Your task to perform on an android device: What's the weather? Image 0: 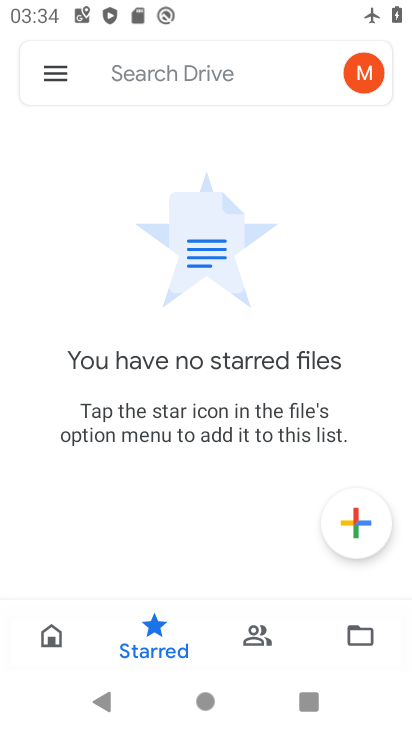
Step 0: press home button
Your task to perform on an android device: What's the weather? Image 1: 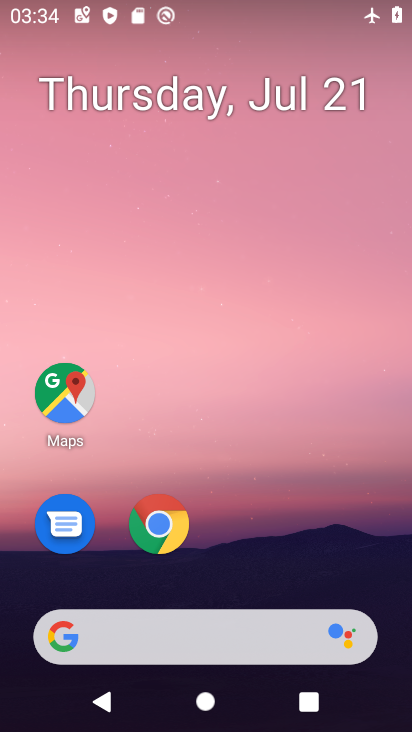
Step 1: click (234, 642)
Your task to perform on an android device: What's the weather? Image 2: 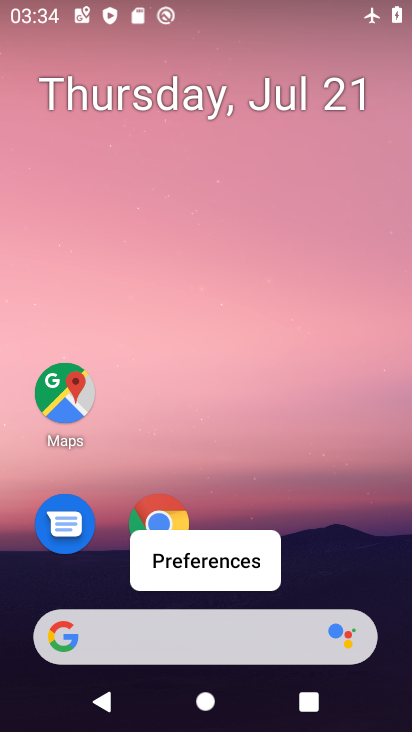
Step 2: click (184, 648)
Your task to perform on an android device: What's the weather? Image 3: 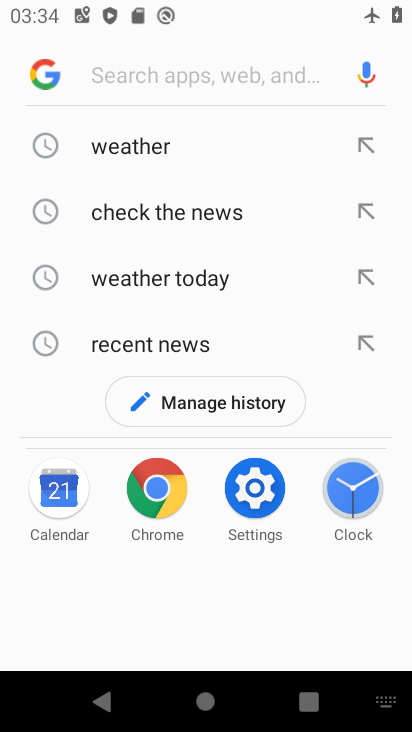
Step 3: click (135, 138)
Your task to perform on an android device: What's the weather? Image 4: 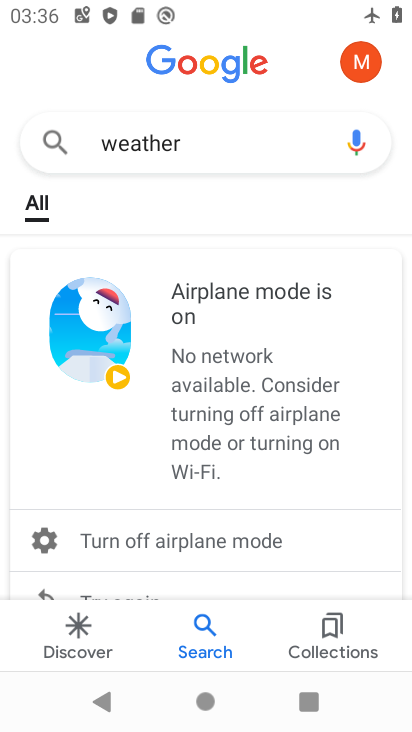
Step 4: task complete